Your task to perform on an android device: Go to settings Image 0: 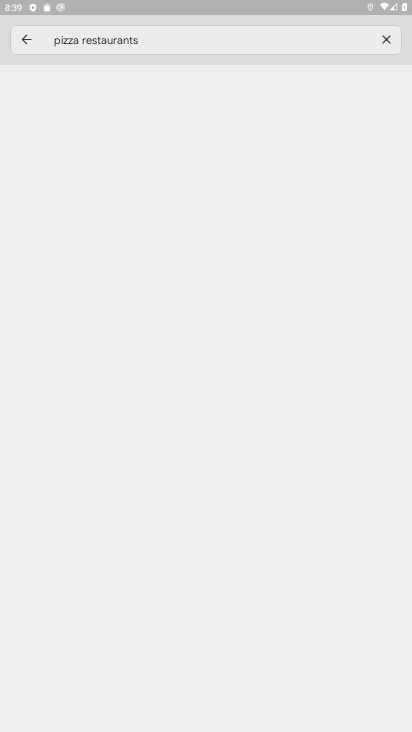
Step 0: press home button
Your task to perform on an android device: Go to settings Image 1: 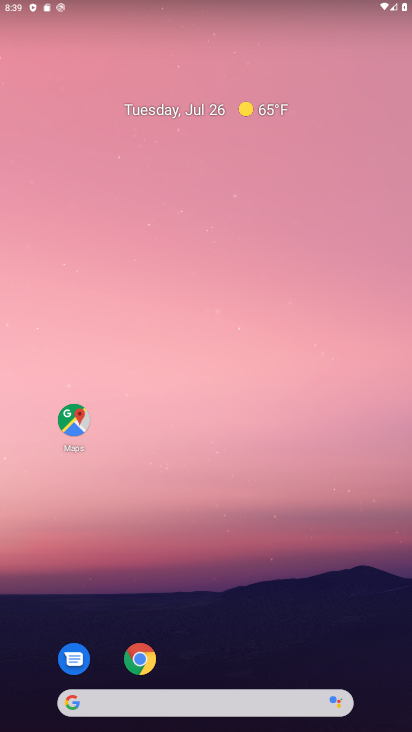
Step 1: drag from (187, 570) to (184, 98)
Your task to perform on an android device: Go to settings Image 2: 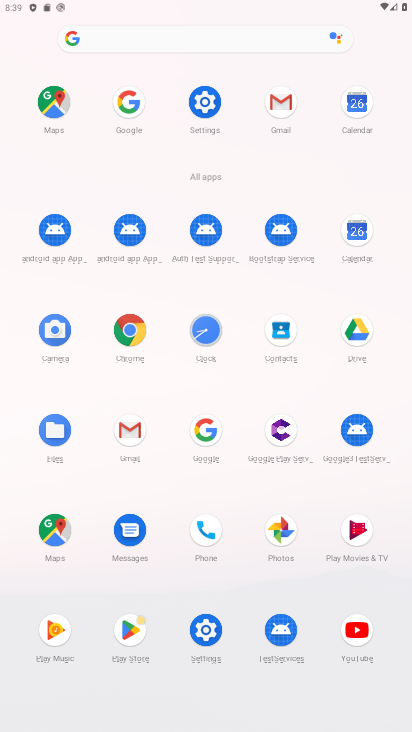
Step 2: click (200, 100)
Your task to perform on an android device: Go to settings Image 3: 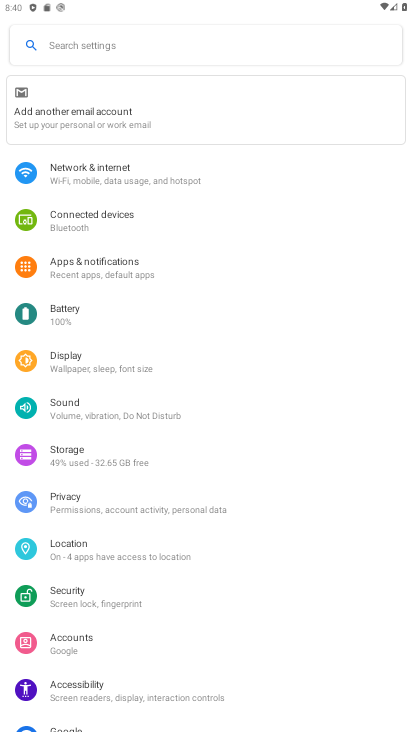
Step 3: task complete